Your task to perform on an android device: Open Google Chrome and click the shortcut for Amazon.com Image 0: 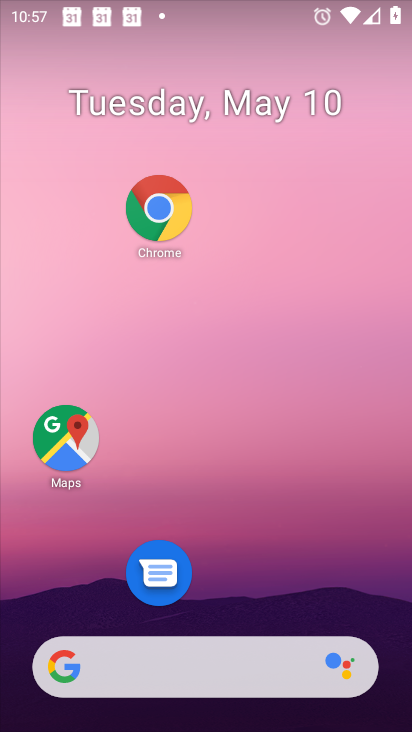
Step 0: drag from (274, 690) to (403, 185)
Your task to perform on an android device: Open Google Chrome and click the shortcut for Amazon.com Image 1: 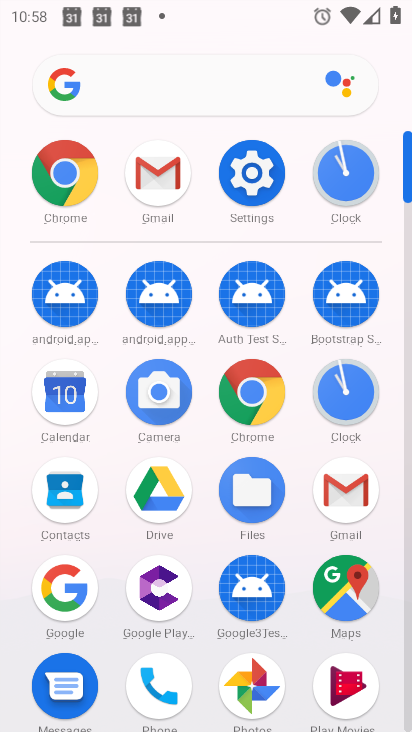
Step 1: click (83, 184)
Your task to perform on an android device: Open Google Chrome and click the shortcut for Amazon.com Image 2: 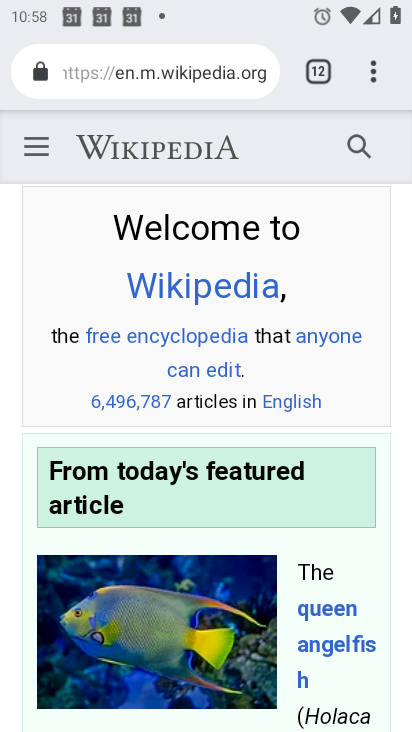
Step 2: click (307, 74)
Your task to perform on an android device: Open Google Chrome and click the shortcut for Amazon.com Image 3: 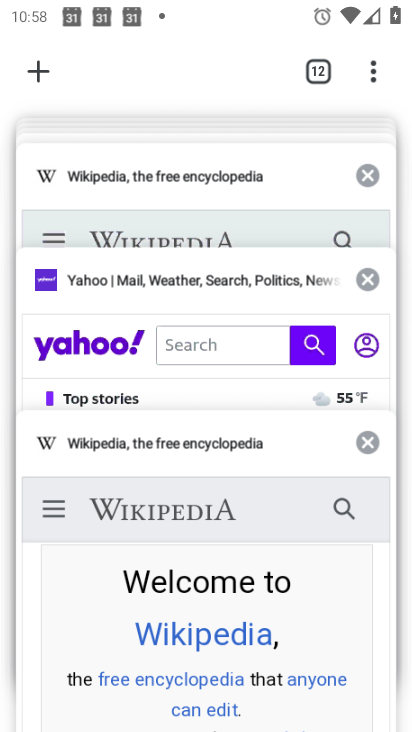
Step 3: click (29, 66)
Your task to perform on an android device: Open Google Chrome and click the shortcut for Amazon.com Image 4: 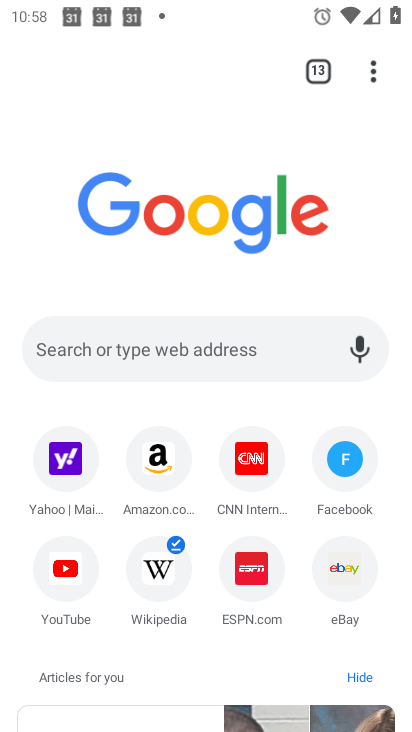
Step 4: click (145, 465)
Your task to perform on an android device: Open Google Chrome and click the shortcut for Amazon.com Image 5: 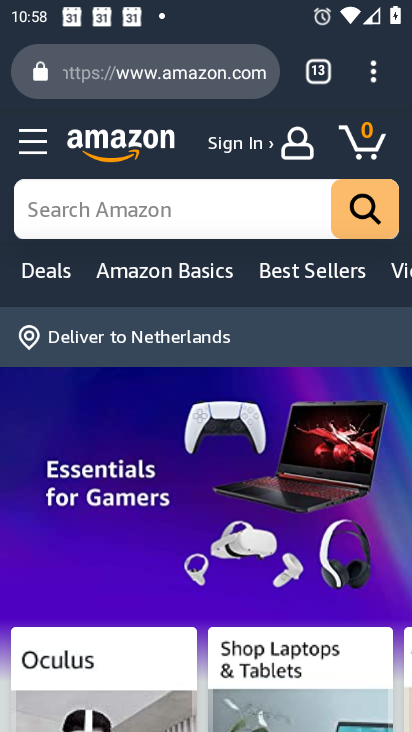
Step 5: click (364, 82)
Your task to perform on an android device: Open Google Chrome and click the shortcut for Amazon.com Image 6: 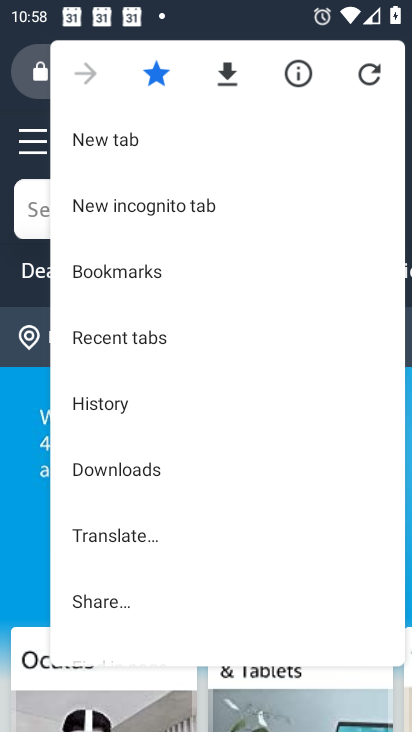
Step 6: drag from (192, 466) to (279, 313)
Your task to perform on an android device: Open Google Chrome and click the shortcut for Amazon.com Image 7: 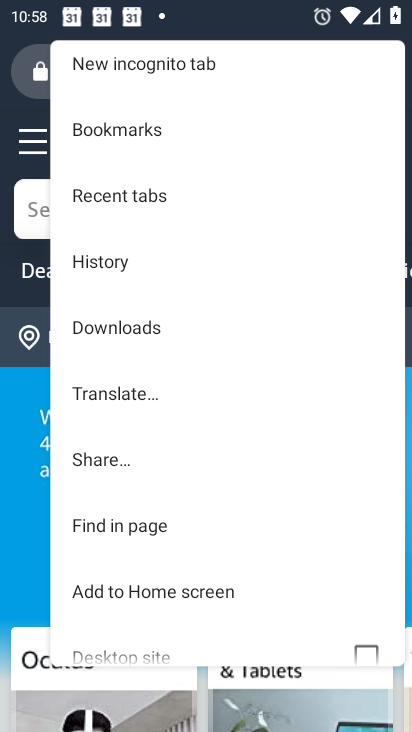
Step 7: click (162, 593)
Your task to perform on an android device: Open Google Chrome and click the shortcut for Amazon.com Image 8: 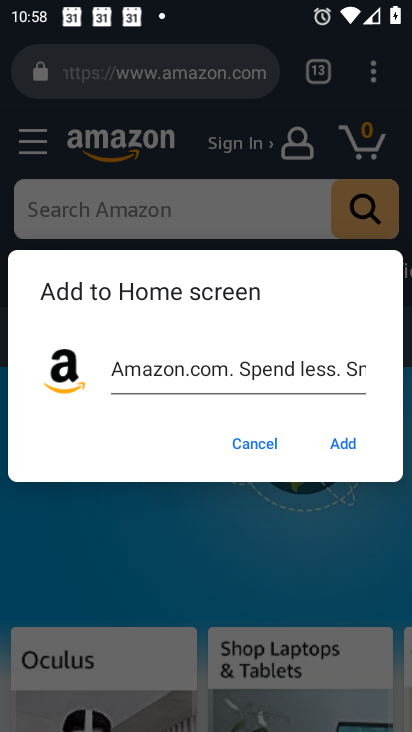
Step 8: click (337, 435)
Your task to perform on an android device: Open Google Chrome and click the shortcut for Amazon.com Image 9: 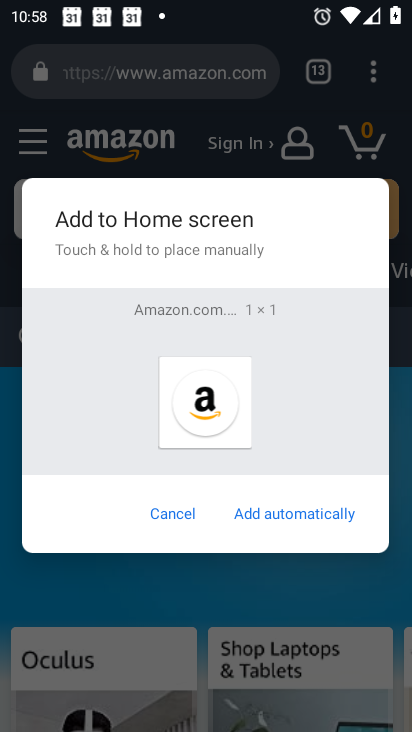
Step 9: task complete